Your task to perform on an android device: open app "Messages" (install if not already installed) and enter user name: "Hersey@inbox.com" and password: "facings" Image 0: 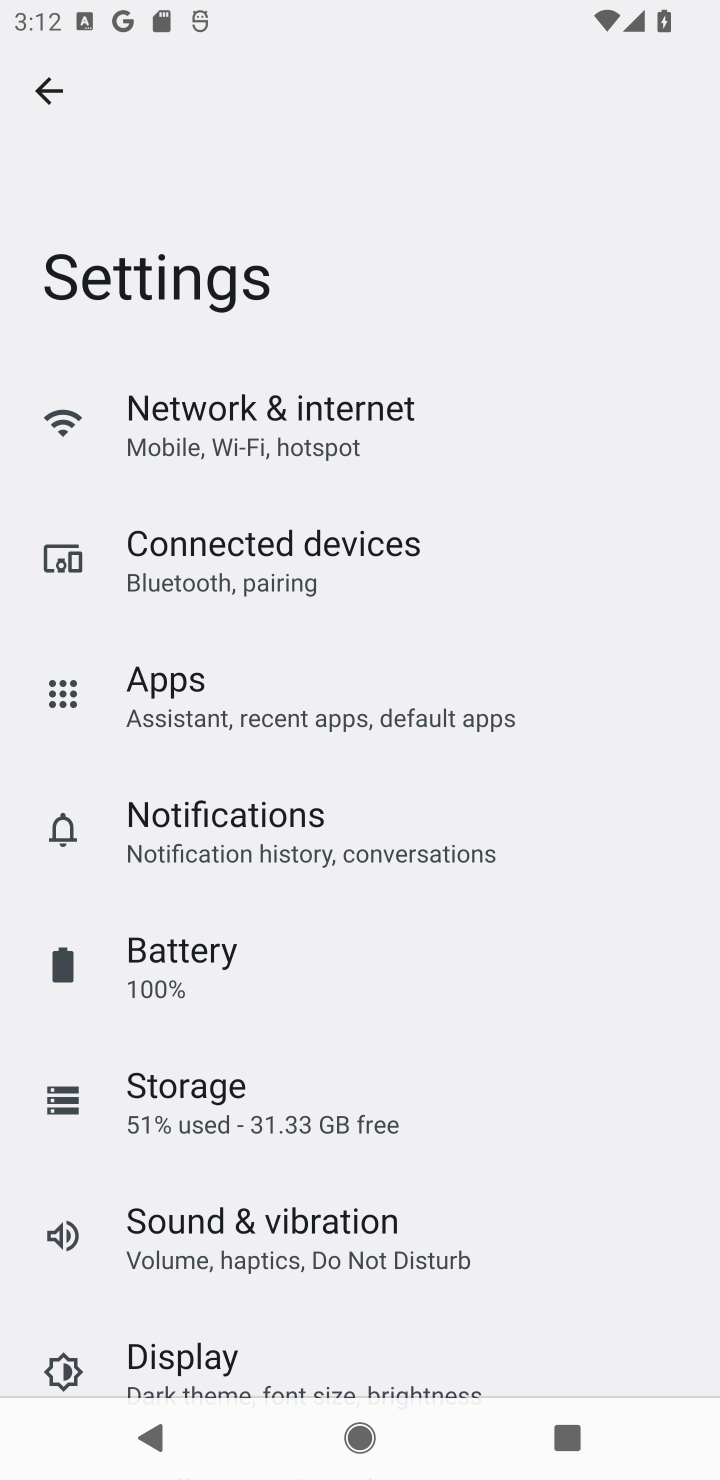
Step 0: press home button
Your task to perform on an android device: open app "Messages" (install if not already installed) and enter user name: "Hersey@inbox.com" and password: "facings" Image 1: 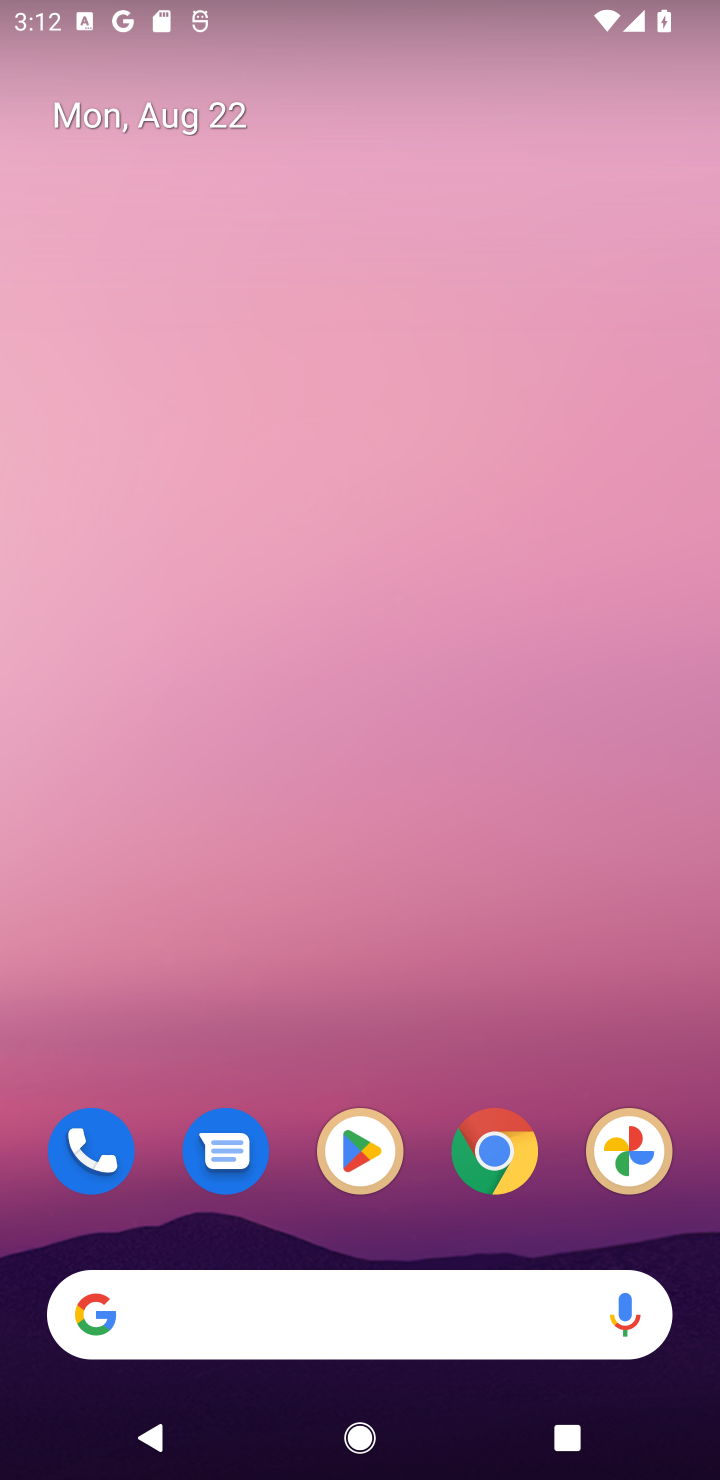
Step 1: click (350, 1161)
Your task to perform on an android device: open app "Messages" (install if not already installed) and enter user name: "Hersey@inbox.com" and password: "facings" Image 2: 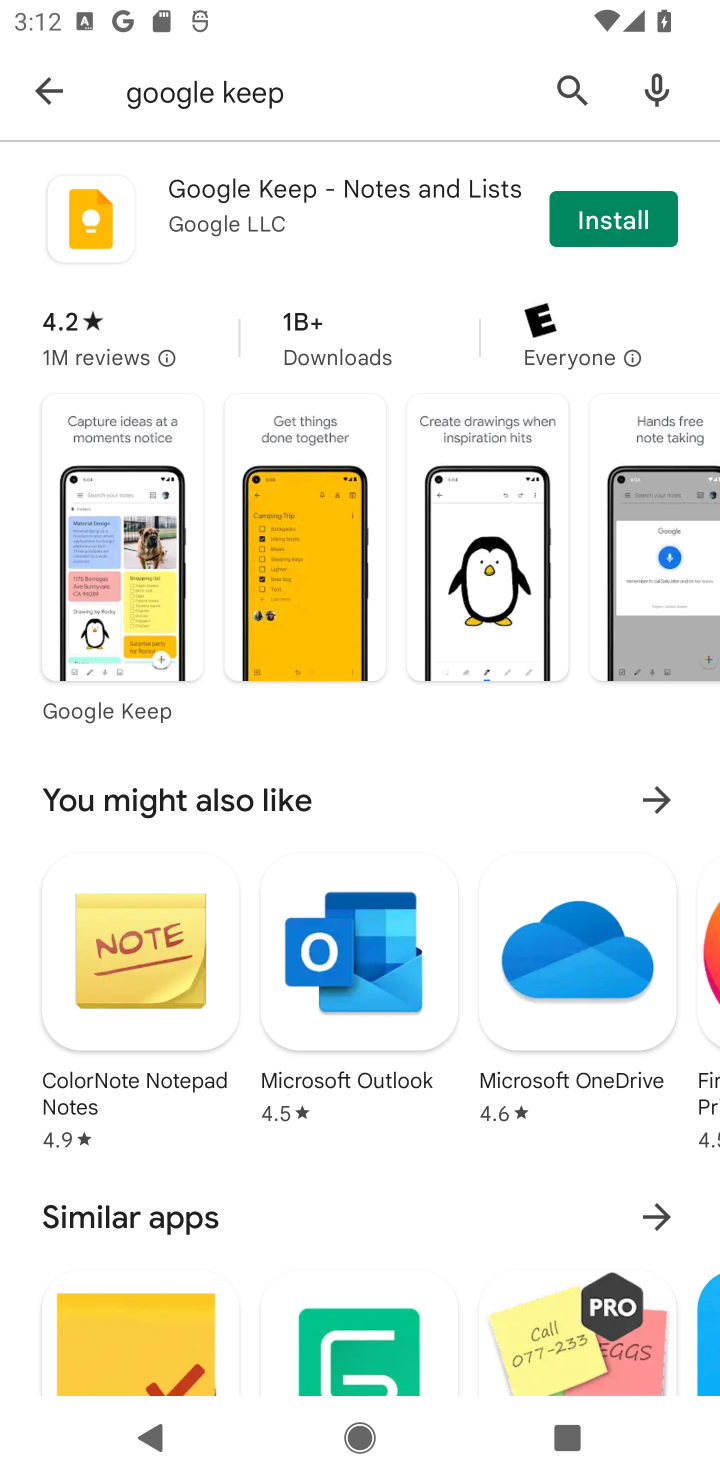
Step 2: click (571, 80)
Your task to perform on an android device: open app "Messages" (install if not already installed) and enter user name: "Hersey@inbox.com" and password: "facings" Image 3: 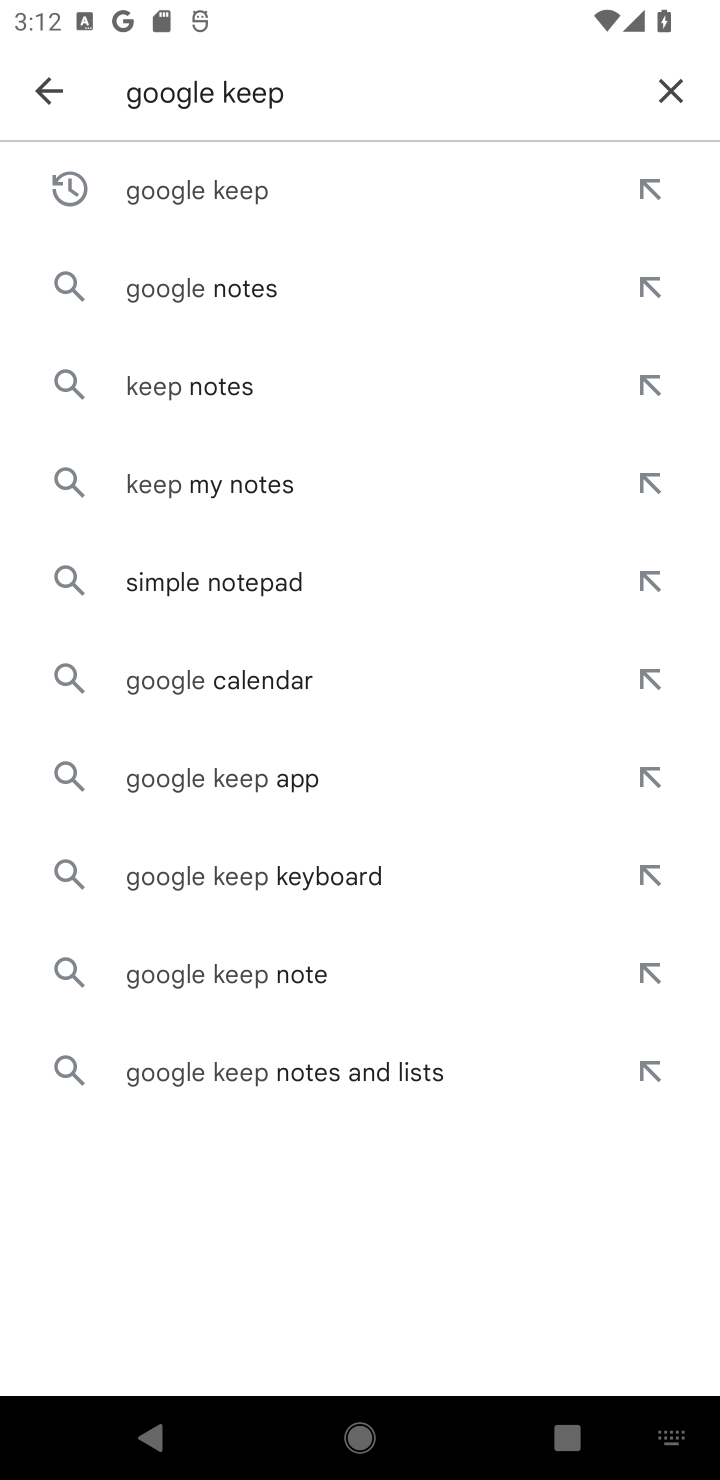
Step 3: click (664, 82)
Your task to perform on an android device: open app "Messages" (install if not already installed) and enter user name: "Hersey@inbox.com" and password: "facings" Image 4: 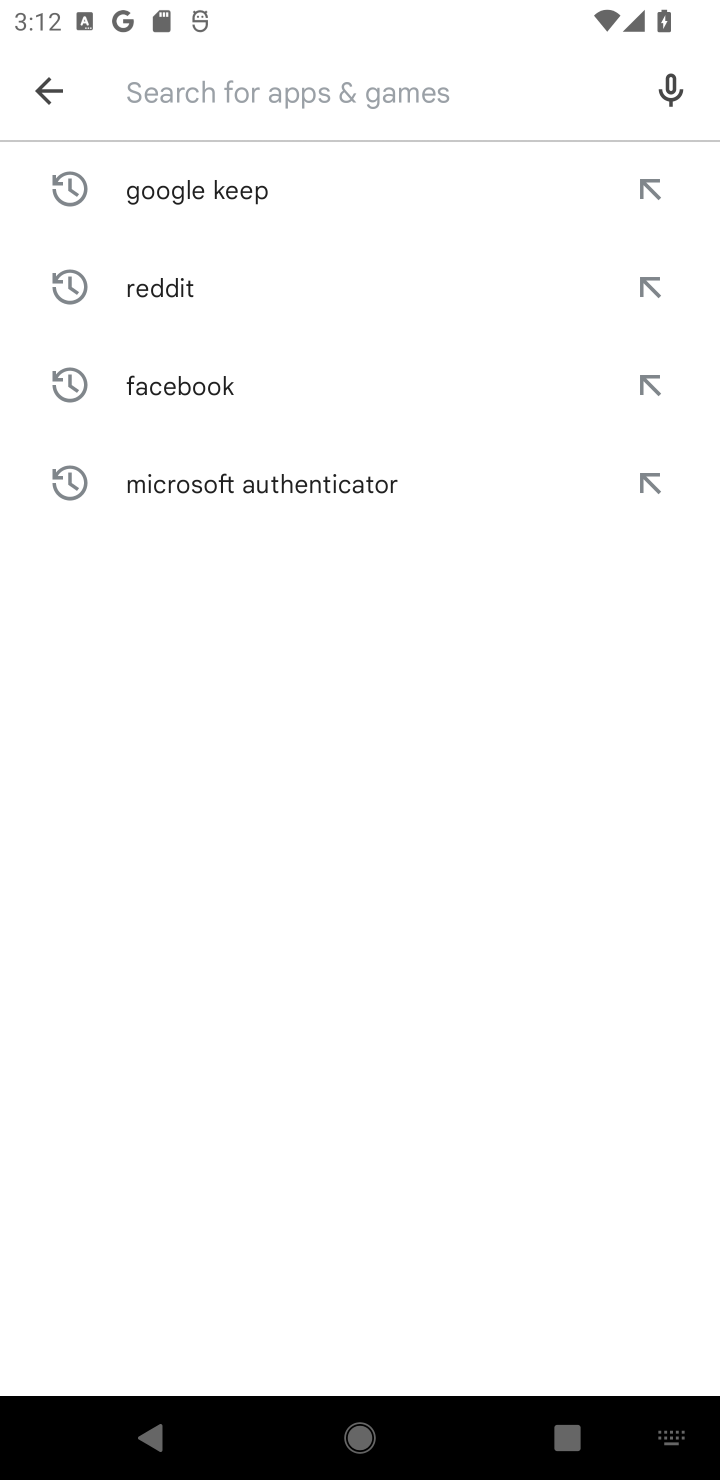
Step 4: type "Messages"
Your task to perform on an android device: open app "Messages" (install if not already installed) and enter user name: "Hersey@inbox.com" and password: "facings" Image 5: 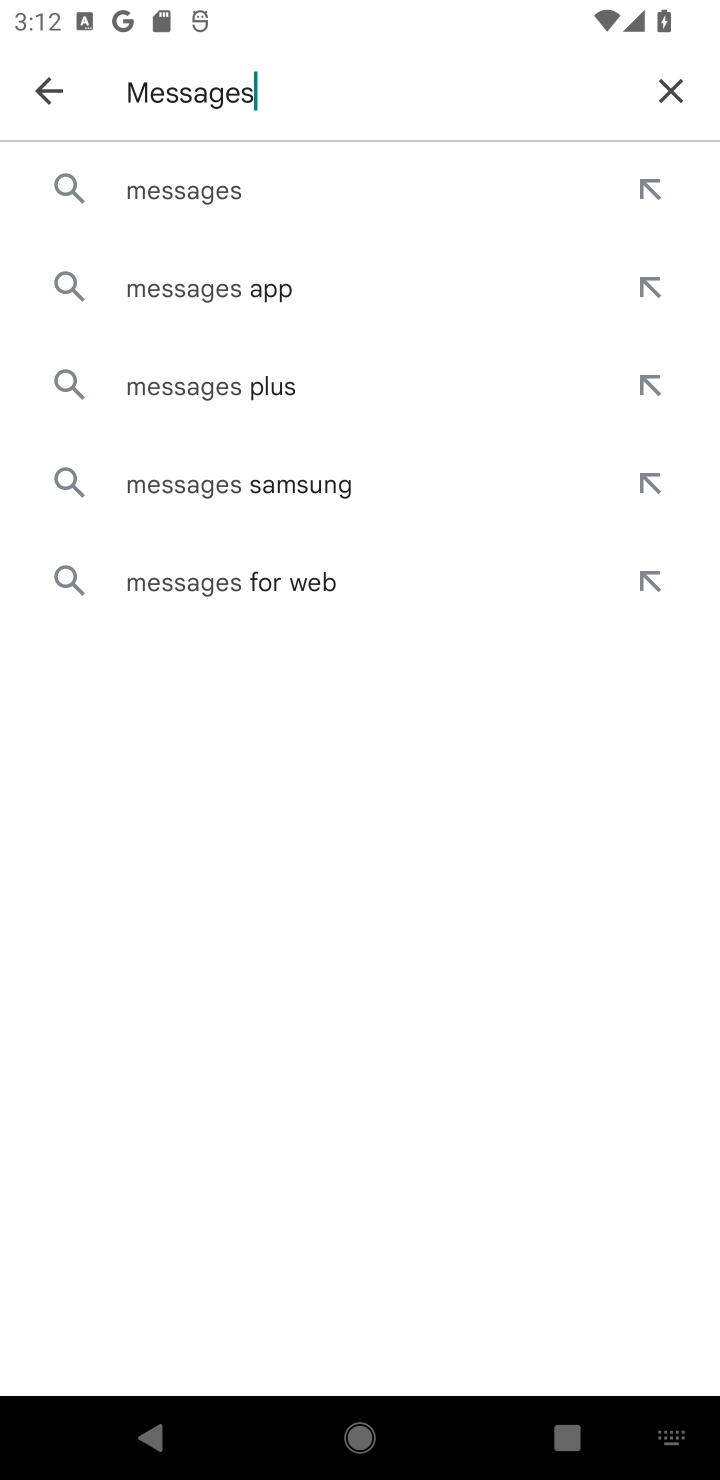
Step 5: click (165, 191)
Your task to perform on an android device: open app "Messages" (install if not already installed) and enter user name: "Hersey@inbox.com" and password: "facings" Image 6: 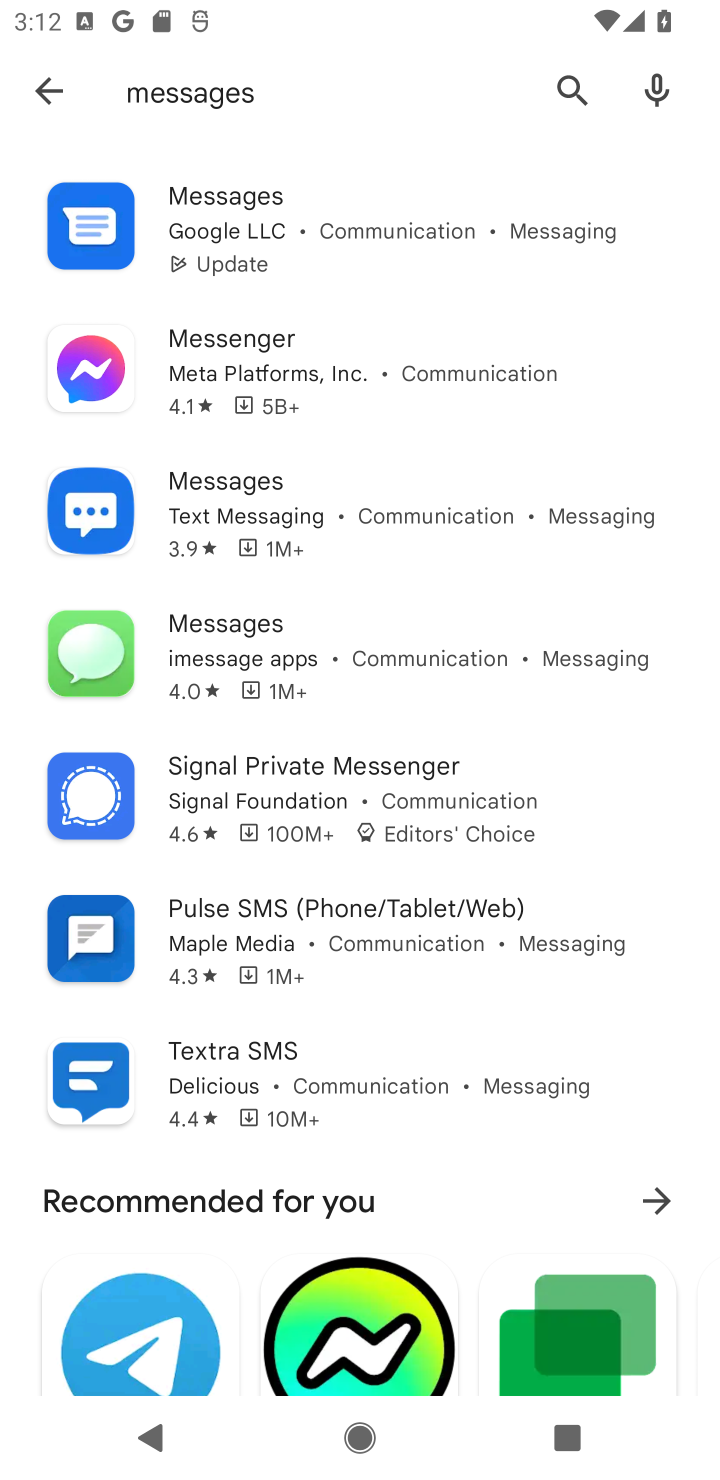
Step 6: click (348, 229)
Your task to perform on an android device: open app "Messages" (install if not already installed) and enter user name: "Hersey@inbox.com" and password: "facings" Image 7: 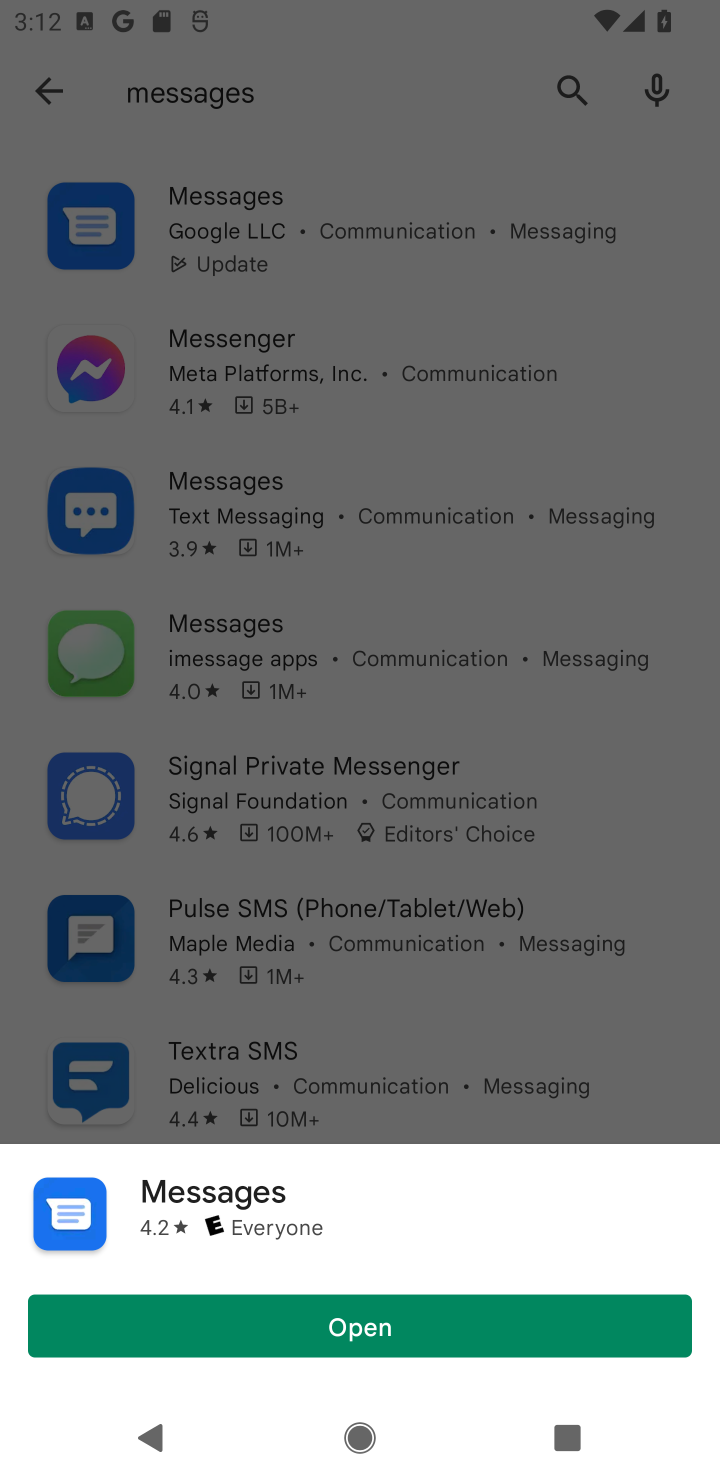
Step 7: click (353, 1335)
Your task to perform on an android device: open app "Messages" (install if not already installed) and enter user name: "Hersey@inbox.com" and password: "facings" Image 8: 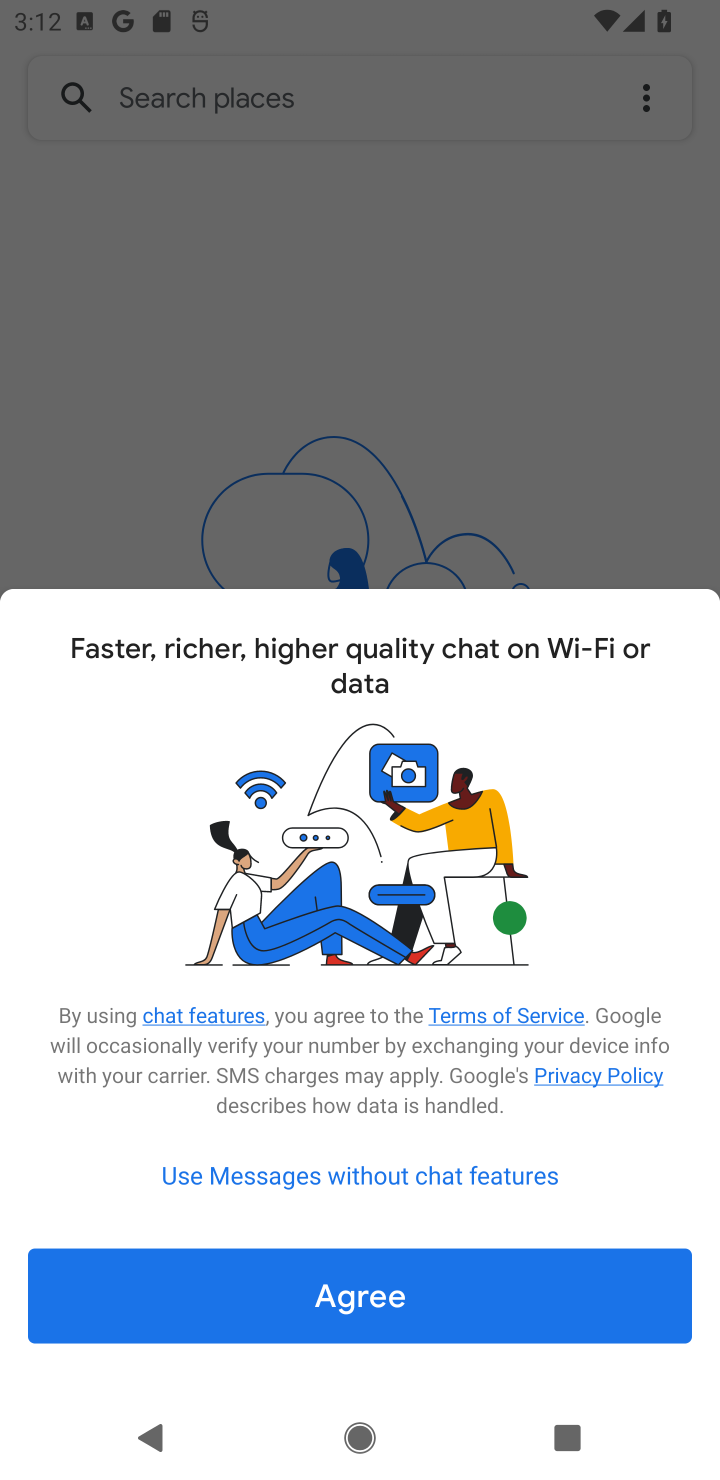
Step 8: click (442, 1283)
Your task to perform on an android device: open app "Messages" (install if not already installed) and enter user name: "Hersey@inbox.com" and password: "facings" Image 9: 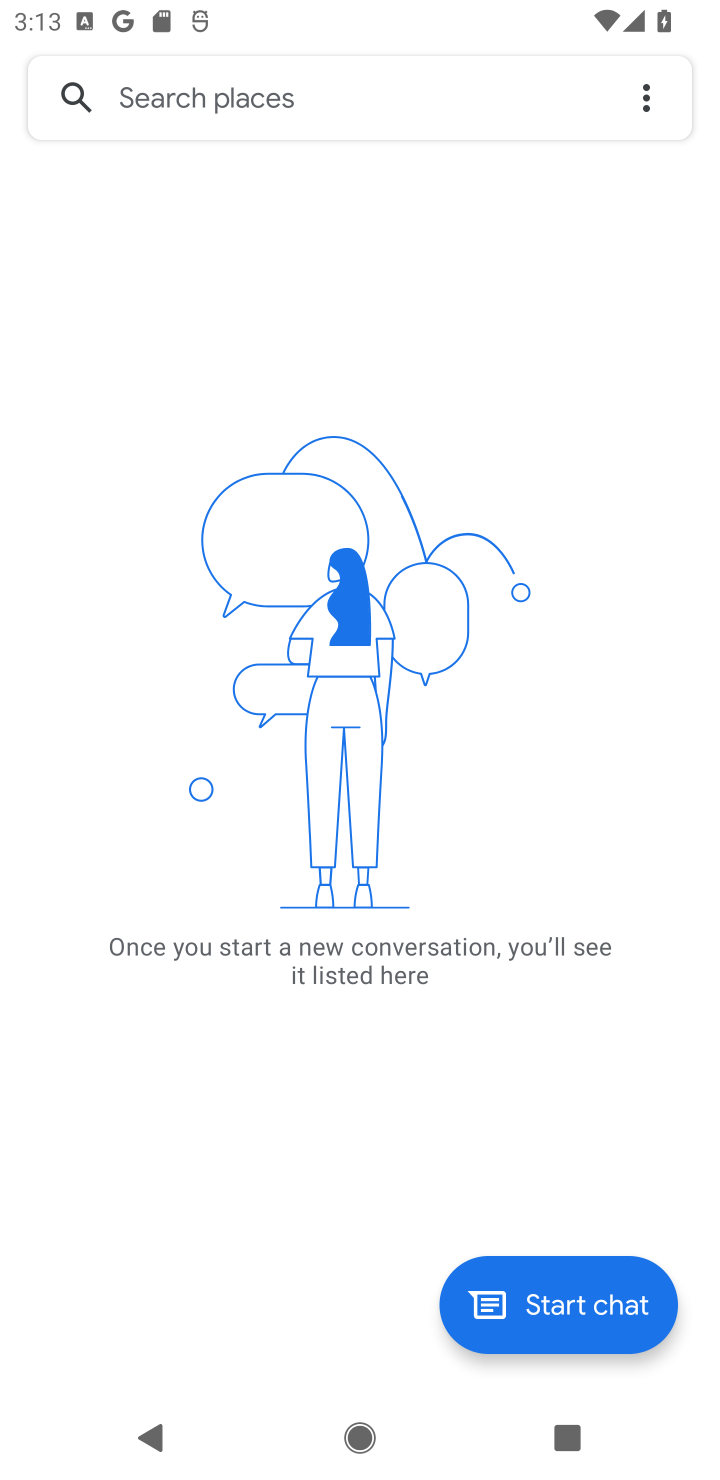
Step 9: task complete